Your task to perform on an android device: open a new tab in the chrome app Image 0: 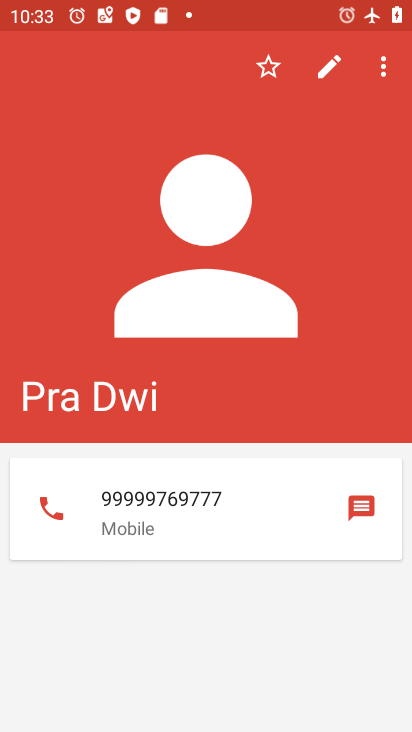
Step 0: press home button
Your task to perform on an android device: open a new tab in the chrome app Image 1: 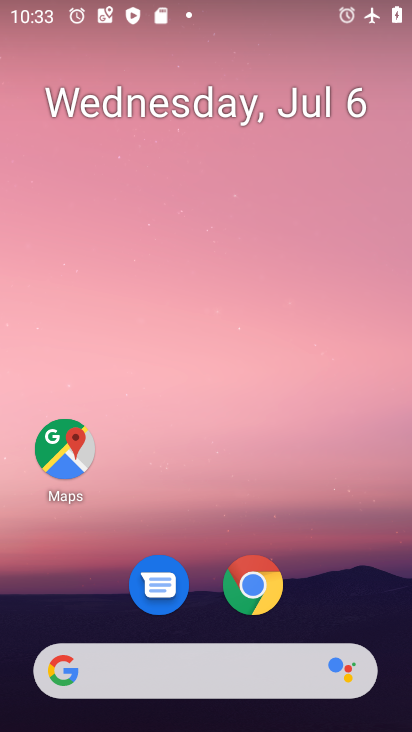
Step 1: click (263, 588)
Your task to perform on an android device: open a new tab in the chrome app Image 2: 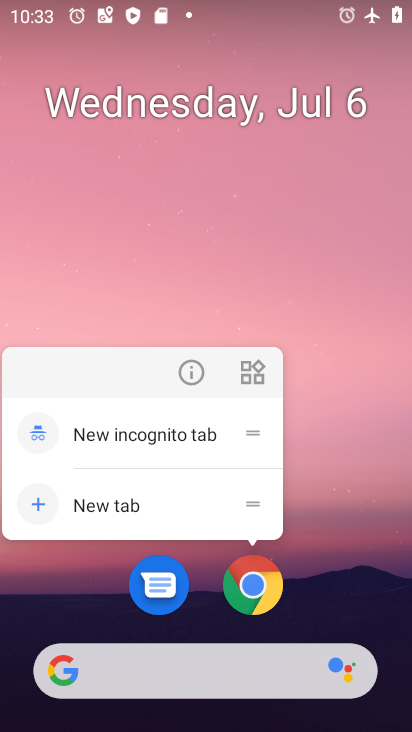
Step 2: click (263, 579)
Your task to perform on an android device: open a new tab in the chrome app Image 3: 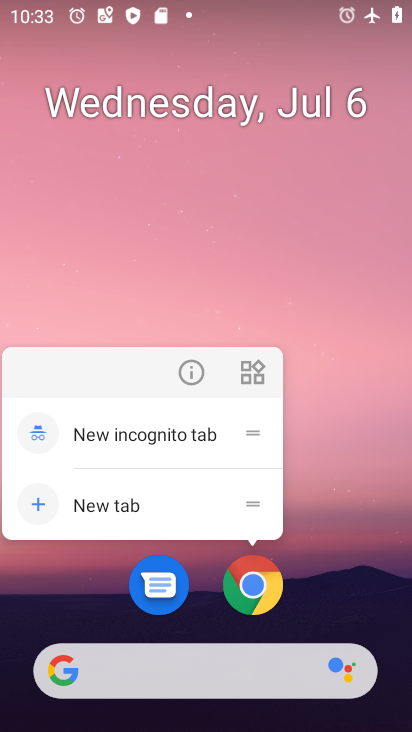
Step 3: click (263, 579)
Your task to perform on an android device: open a new tab in the chrome app Image 4: 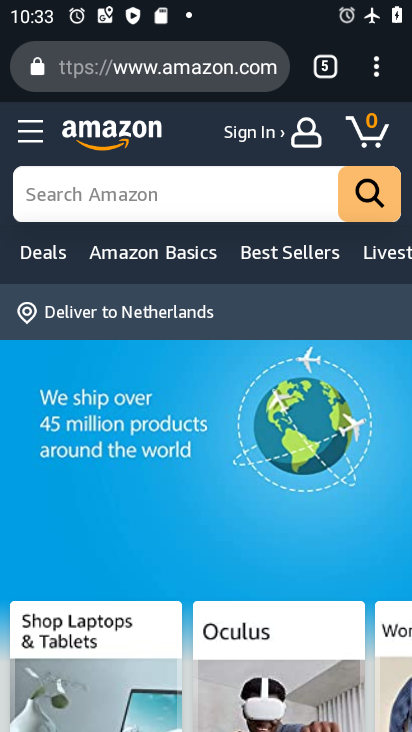
Step 4: click (374, 75)
Your task to perform on an android device: open a new tab in the chrome app Image 5: 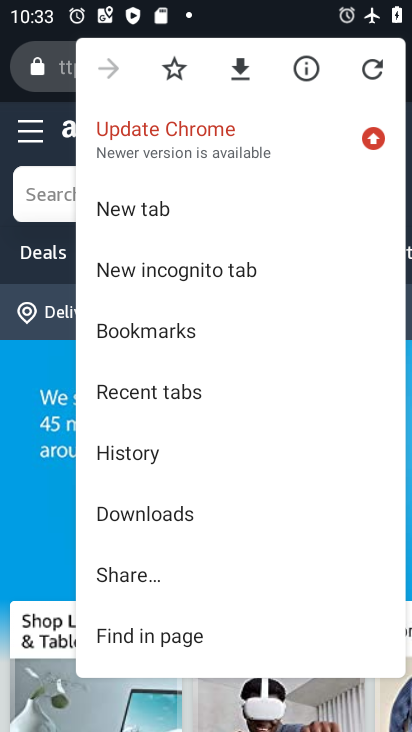
Step 5: click (190, 208)
Your task to perform on an android device: open a new tab in the chrome app Image 6: 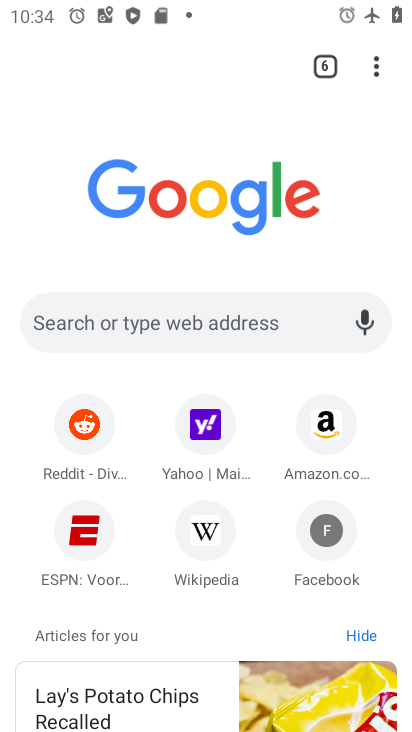
Step 6: task complete